Your task to perform on an android device: Go to sound settings Image 0: 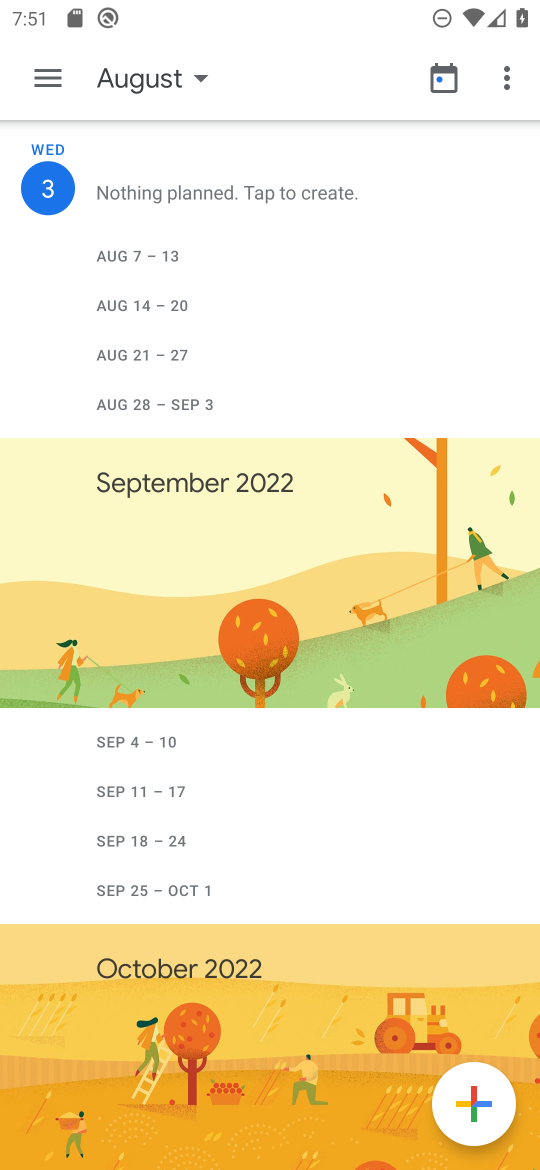
Step 0: press home button
Your task to perform on an android device: Go to sound settings Image 1: 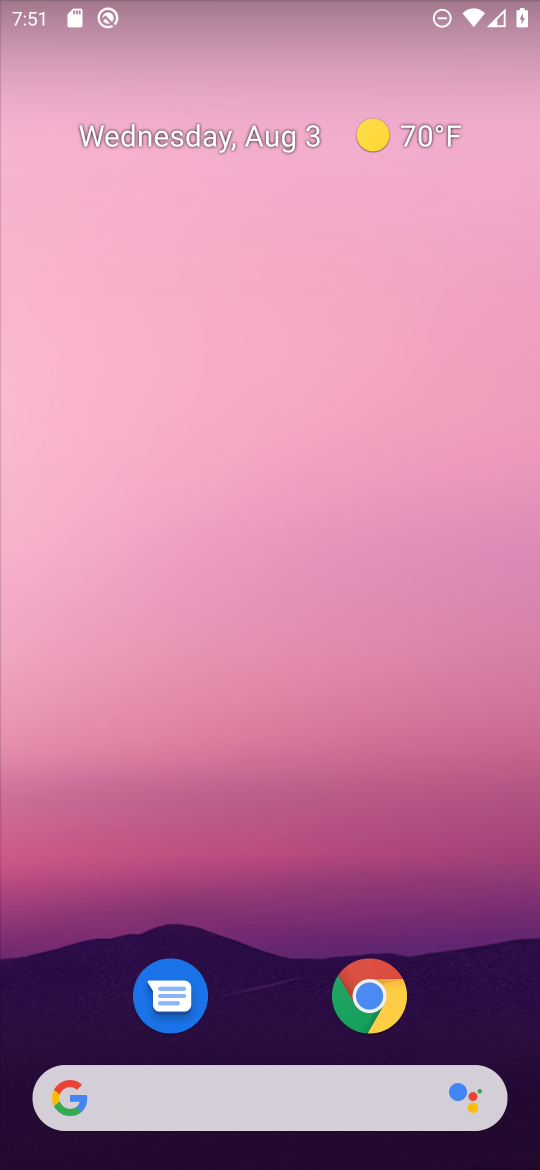
Step 1: drag from (293, 860) to (278, 36)
Your task to perform on an android device: Go to sound settings Image 2: 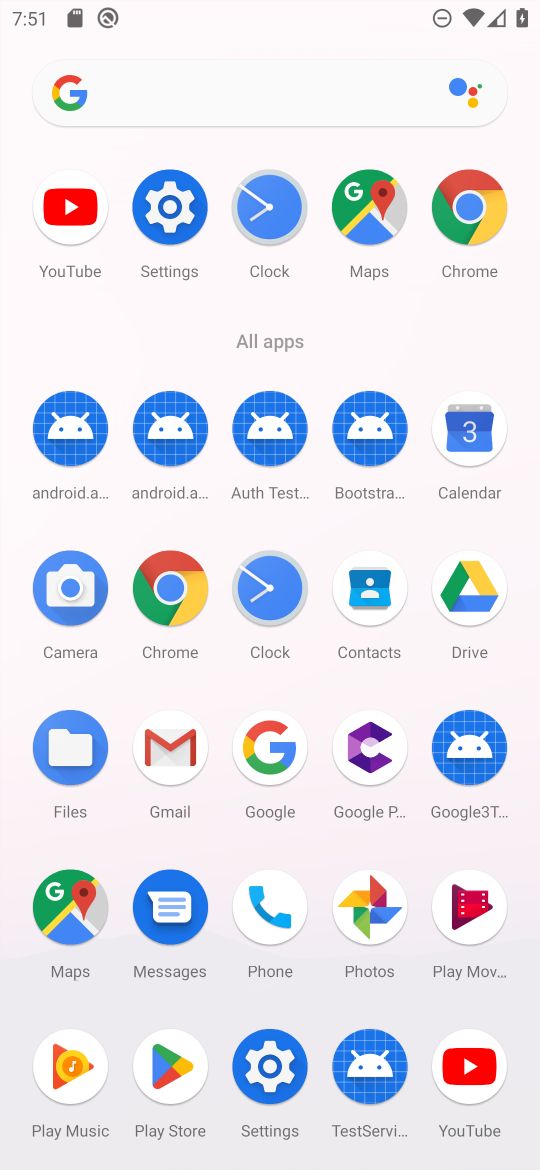
Step 2: click (171, 213)
Your task to perform on an android device: Go to sound settings Image 3: 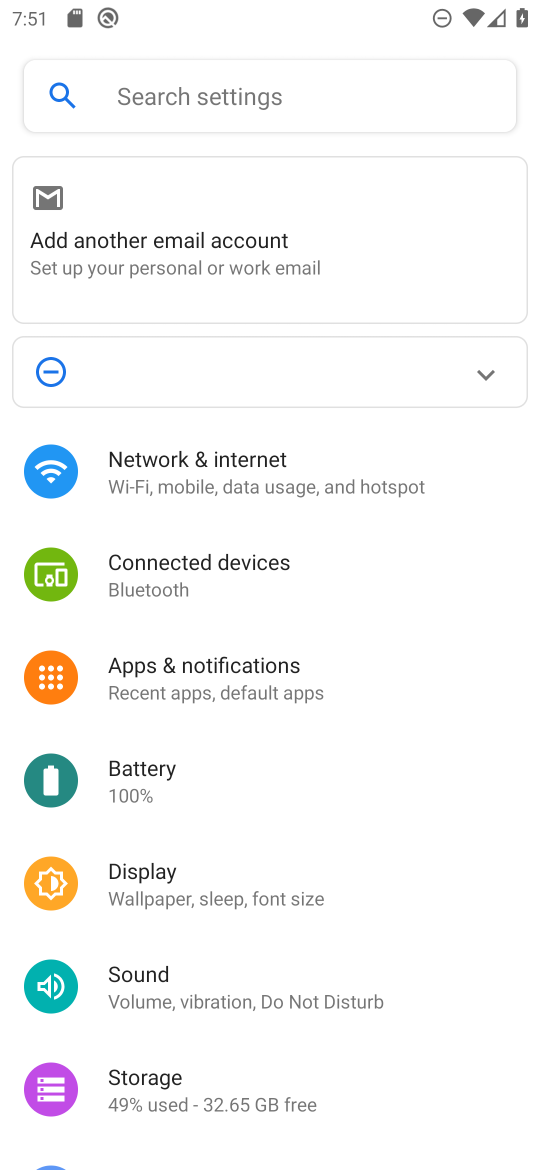
Step 3: click (251, 997)
Your task to perform on an android device: Go to sound settings Image 4: 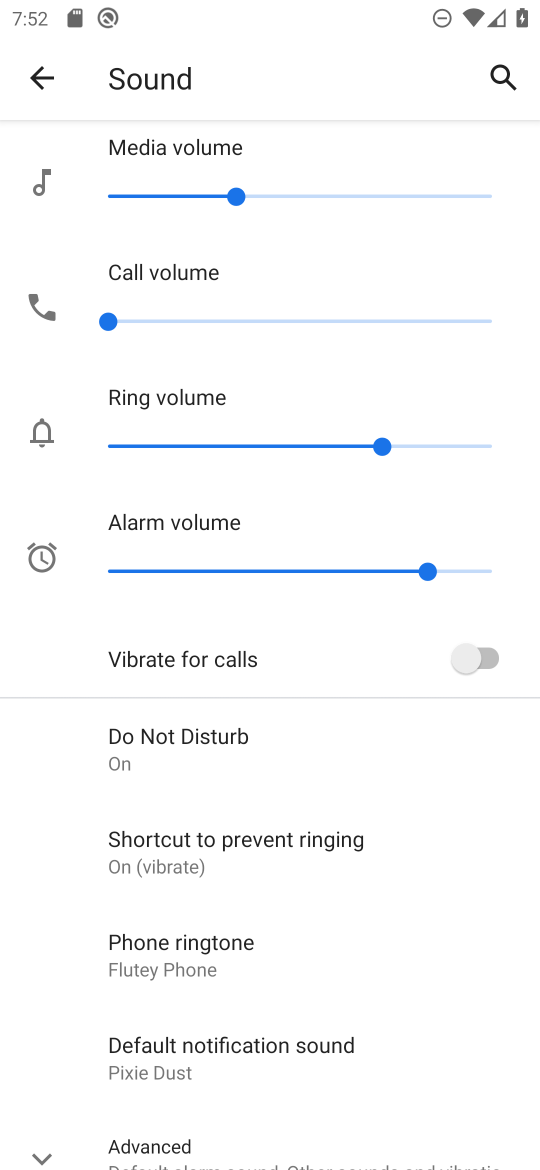
Step 4: task complete